Your task to perform on an android device: check battery use Image 0: 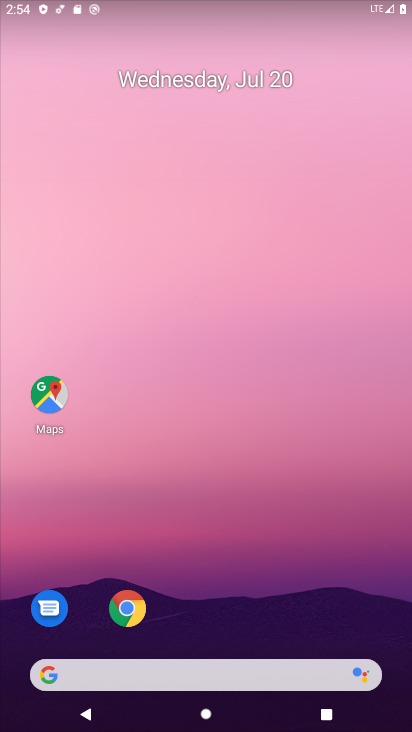
Step 0: drag from (321, 606) to (333, 127)
Your task to perform on an android device: check battery use Image 1: 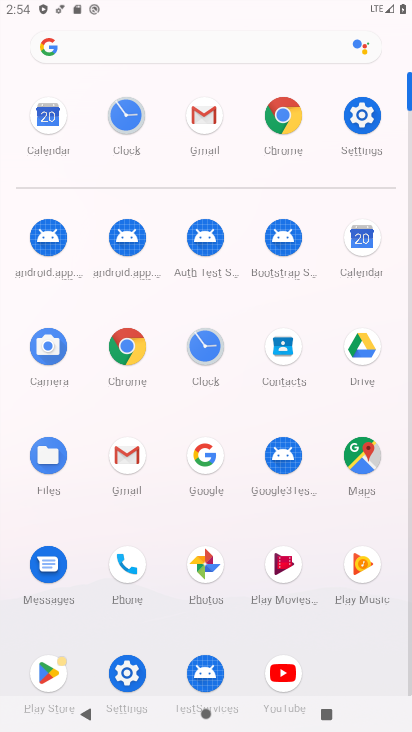
Step 1: click (367, 124)
Your task to perform on an android device: check battery use Image 2: 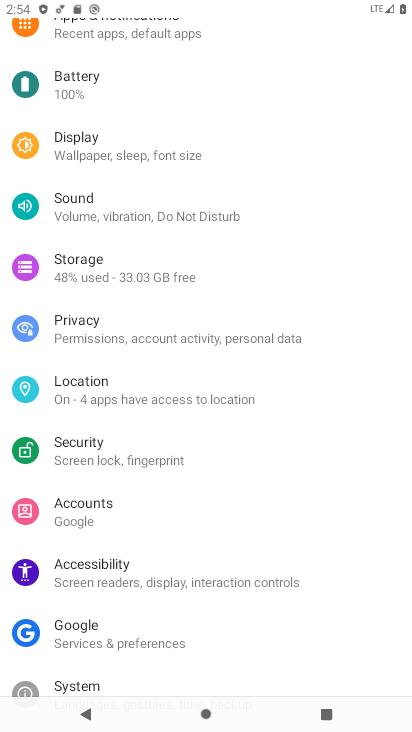
Step 2: click (96, 89)
Your task to perform on an android device: check battery use Image 3: 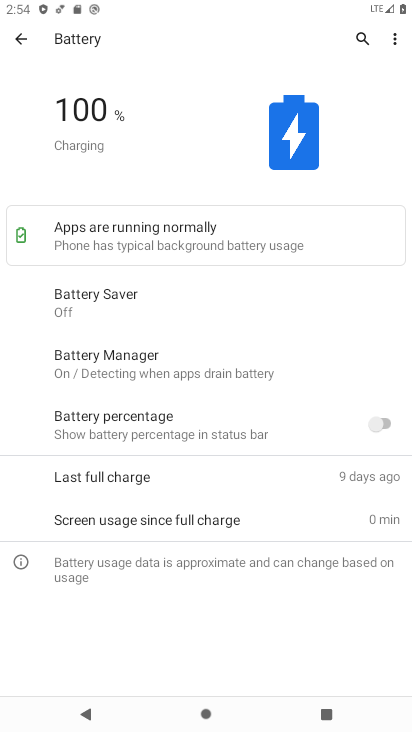
Step 3: click (403, 33)
Your task to perform on an android device: check battery use Image 4: 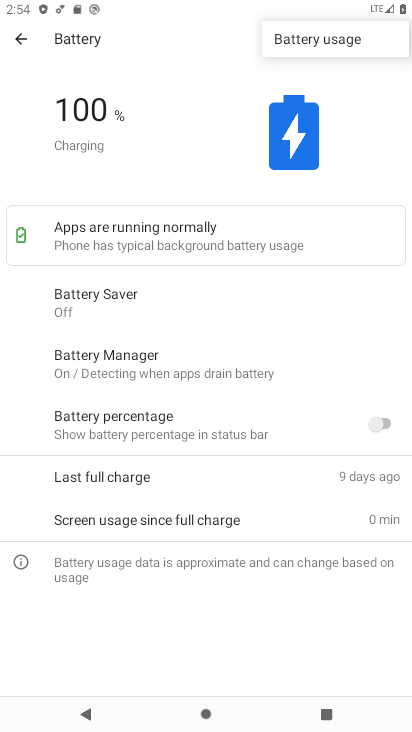
Step 4: click (328, 41)
Your task to perform on an android device: check battery use Image 5: 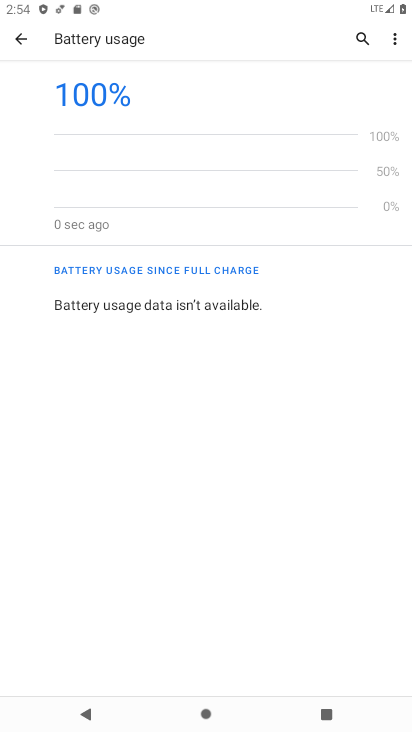
Step 5: task complete